Your task to perform on an android device: Open Google Chrome Image 0: 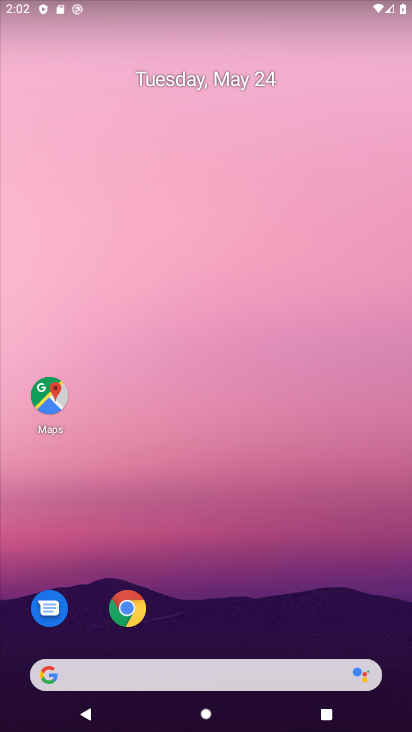
Step 0: drag from (190, 502) to (202, 36)
Your task to perform on an android device: Open Google Chrome Image 1: 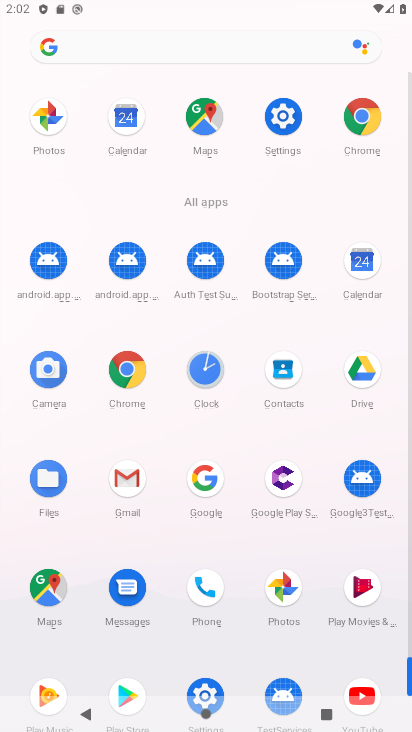
Step 1: drag from (10, 437) to (11, 174)
Your task to perform on an android device: Open Google Chrome Image 2: 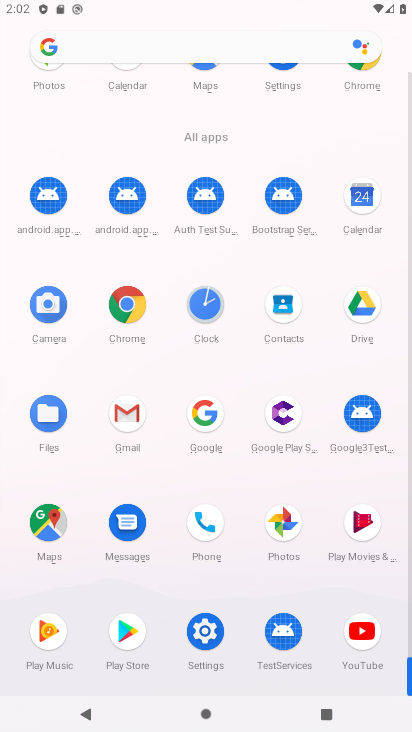
Step 2: click (125, 298)
Your task to perform on an android device: Open Google Chrome Image 3: 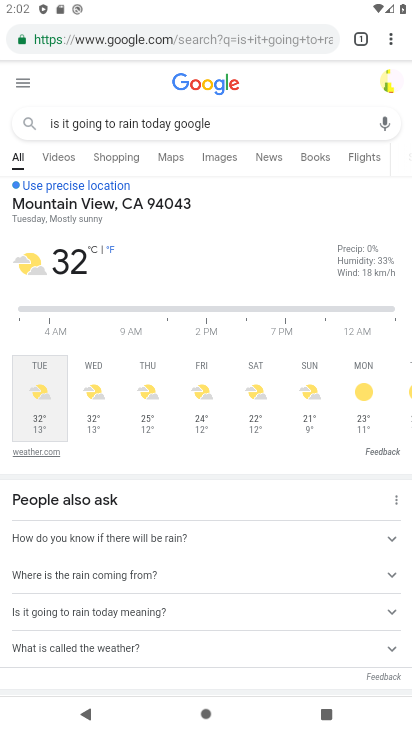
Step 3: task complete